Your task to perform on an android device: Go to wifi settings Image 0: 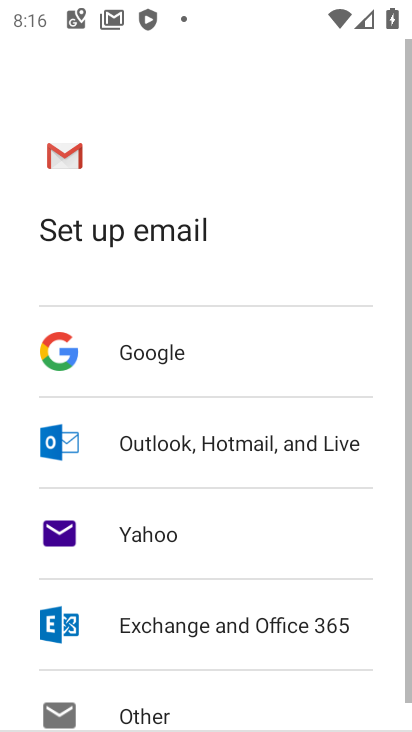
Step 0: press home button
Your task to perform on an android device: Go to wifi settings Image 1: 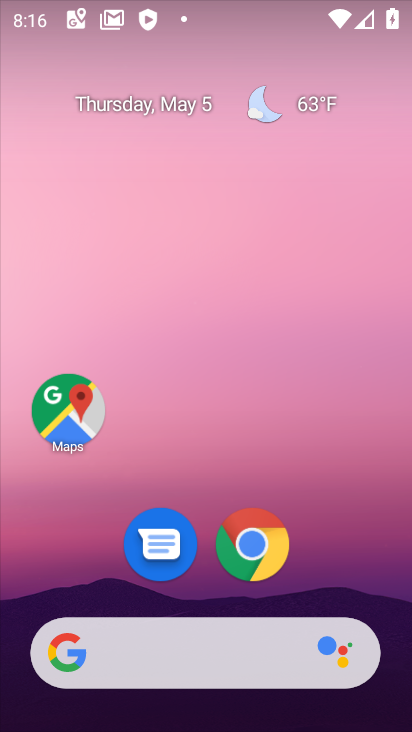
Step 1: drag from (389, 642) to (272, 74)
Your task to perform on an android device: Go to wifi settings Image 2: 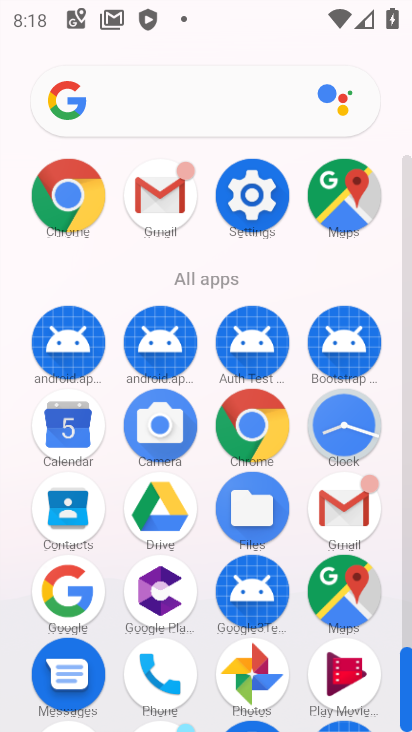
Step 2: click (265, 199)
Your task to perform on an android device: Go to wifi settings Image 3: 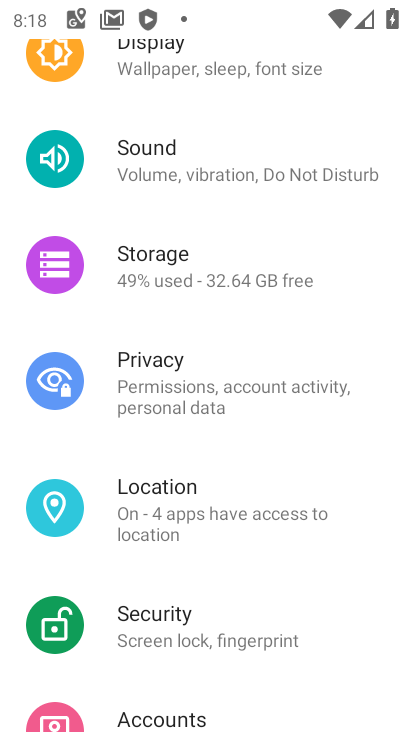
Step 3: drag from (237, 183) to (264, 700)
Your task to perform on an android device: Go to wifi settings Image 4: 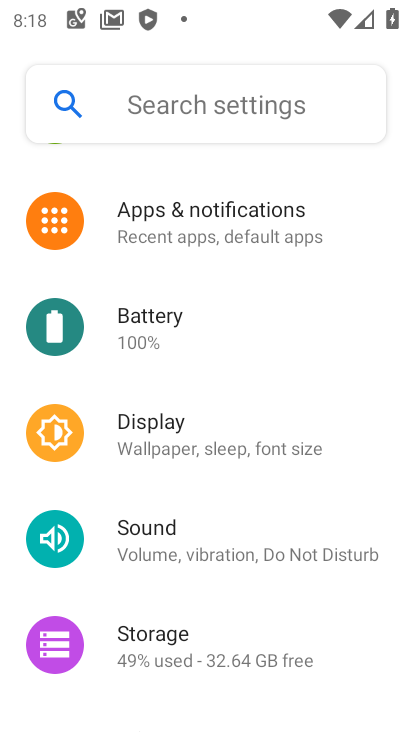
Step 4: drag from (236, 281) to (273, 665)
Your task to perform on an android device: Go to wifi settings Image 5: 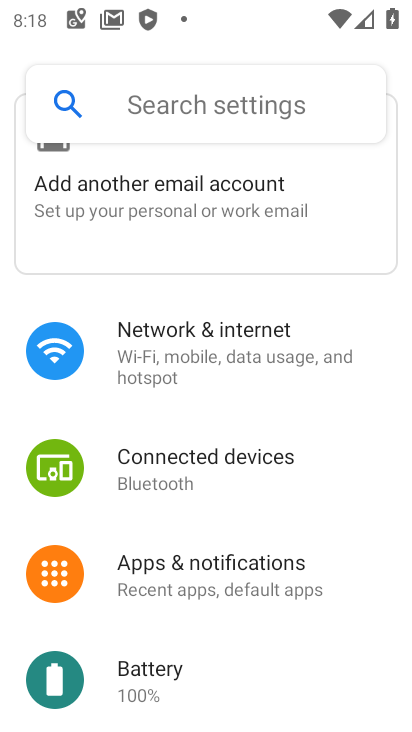
Step 5: click (209, 374)
Your task to perform on an android device: Go to wifi settings Image 6: 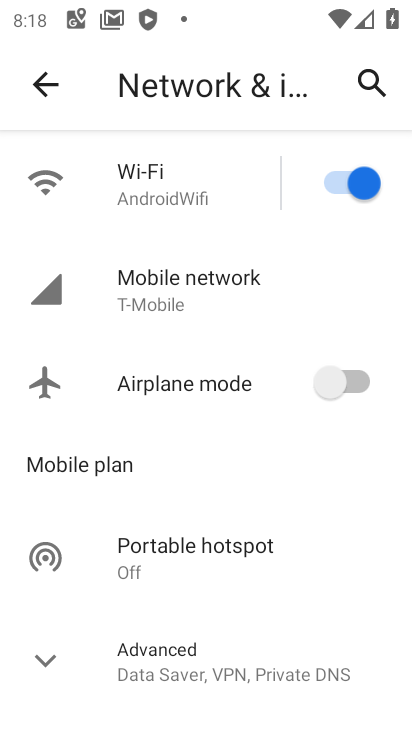
Step 6: click (190, 190)
Your task to perform on an android device: Go to wifi settings Image 7: 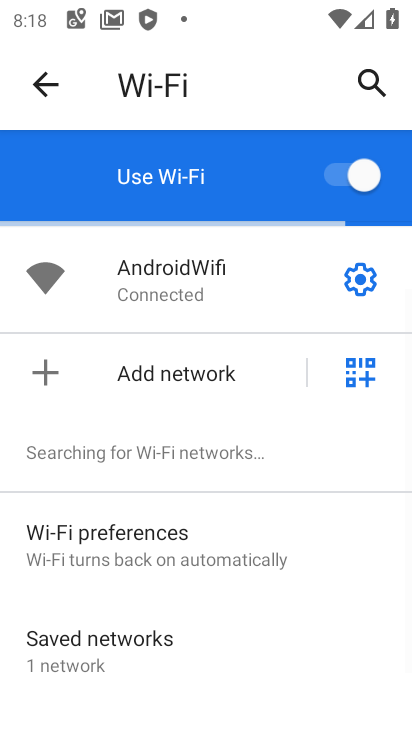
Step 7: task complete